Your task to perform on an android device: Add bose soundlink mini to the cart on walmart Image 0: 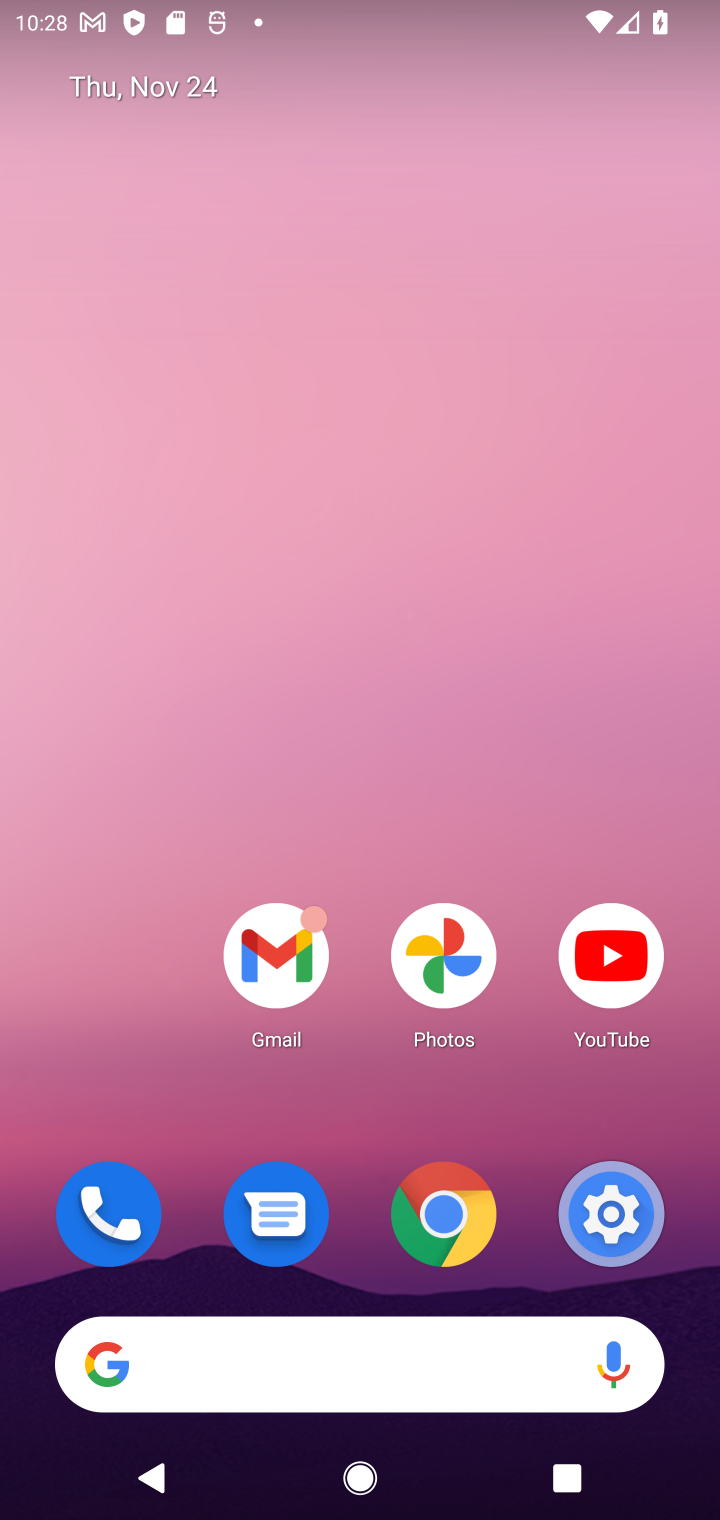
Step 0: click (316, 1331)
Your task to perform on an android device: Add bose soundlink mini to the cart on walmart Image 1: 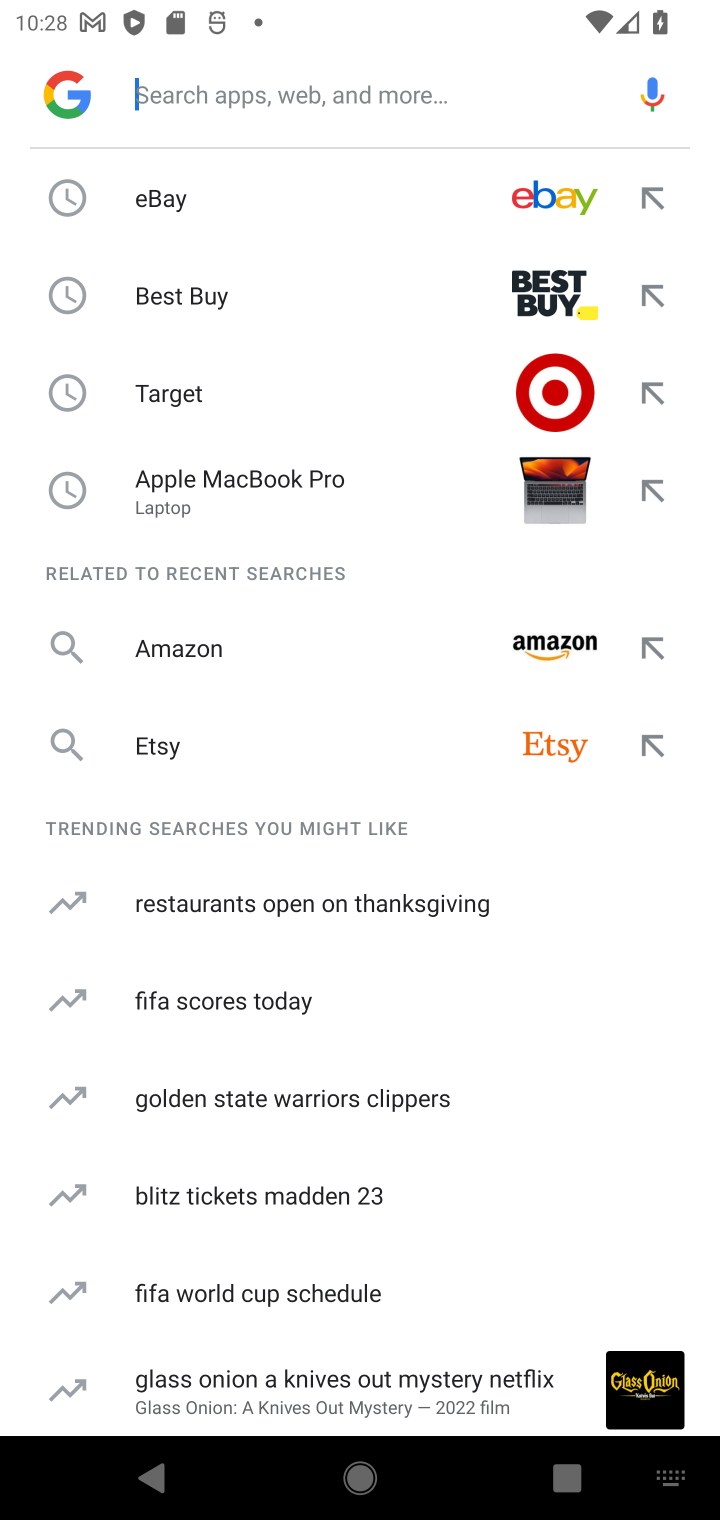
Step 1: type "walmart"
Your task to perform on an android device: Add bose soundlink mini to the cart on walmart Image 2: 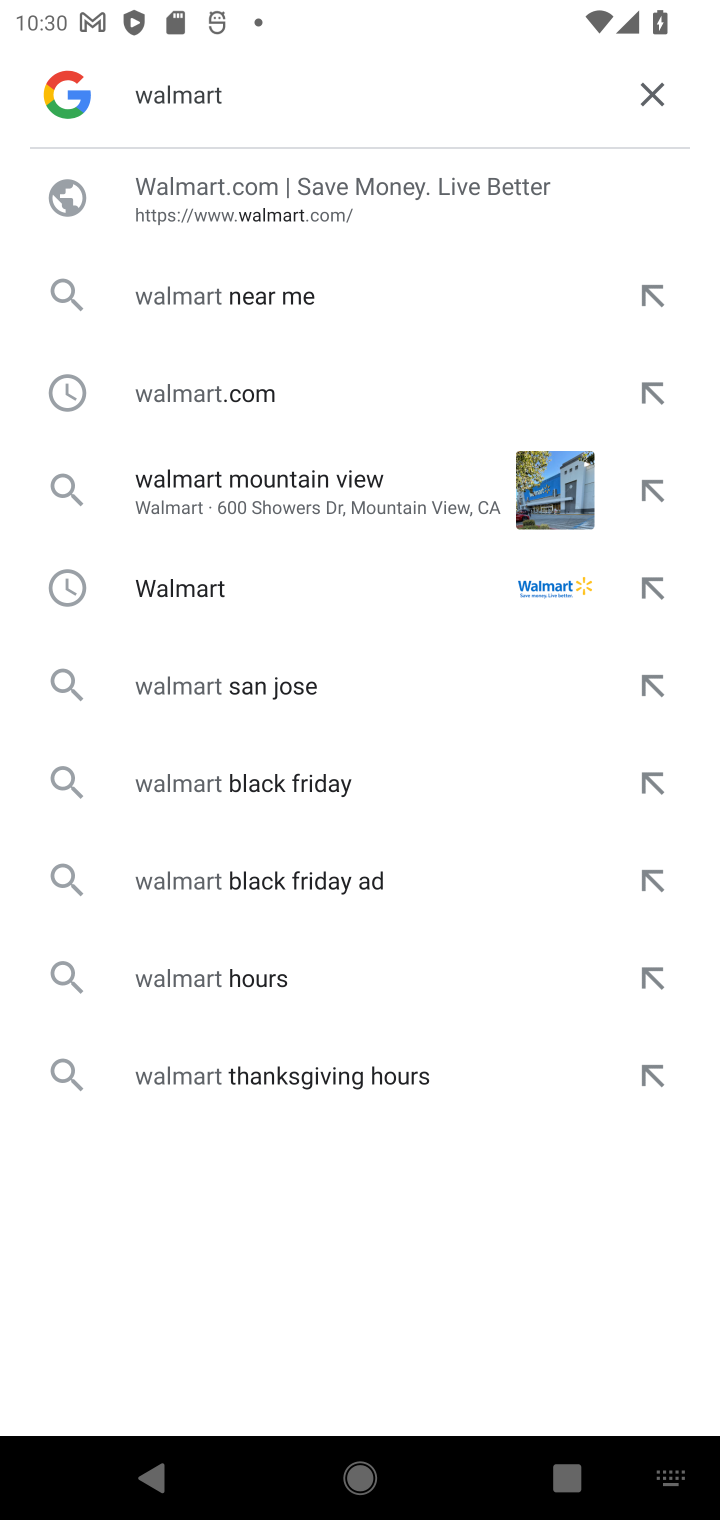
Step 2: click (246, 201)
Your task to perform on an android device: Add bose soundlink mini to the cart on walmart Image 3: 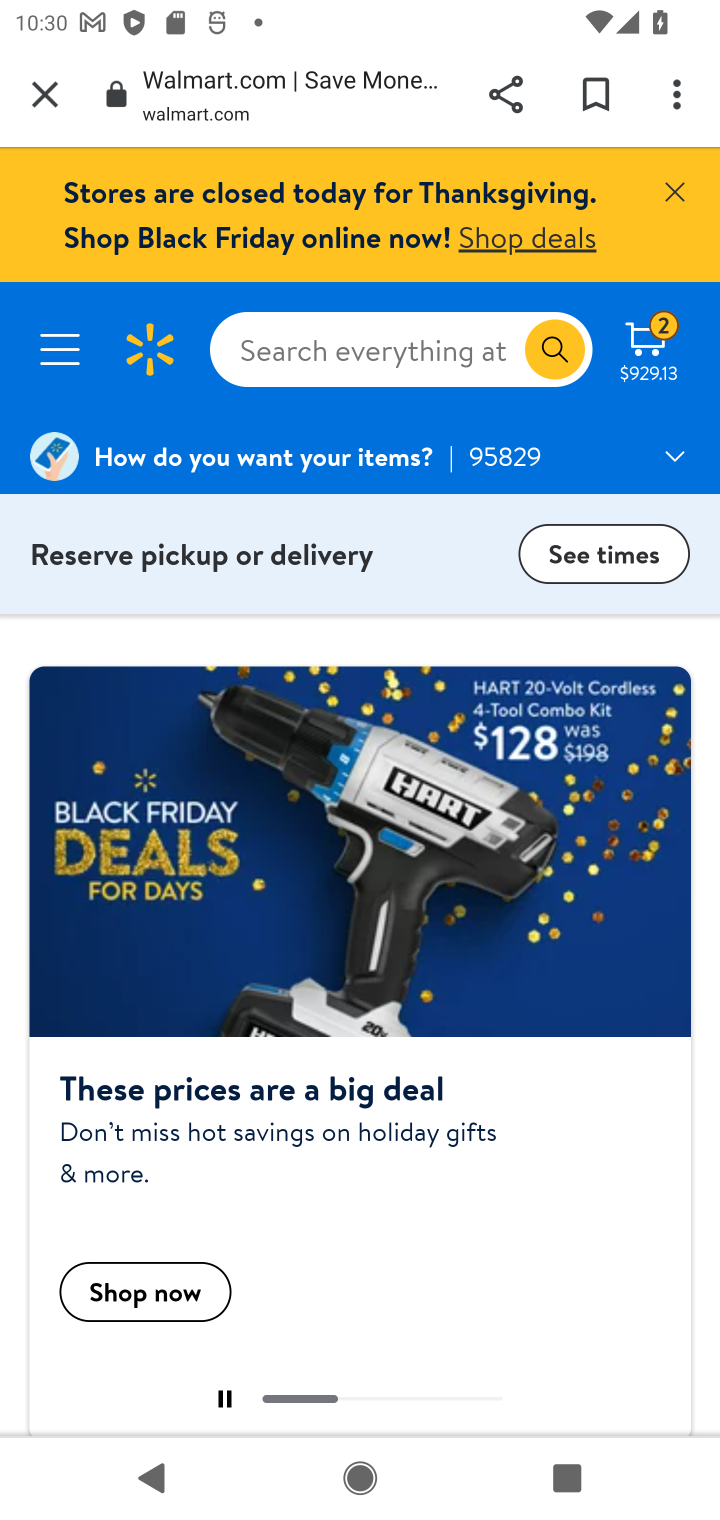
Step 3: task complete